Your task to perform on an android device: turn vacation reply on in the gmail app Image 0: 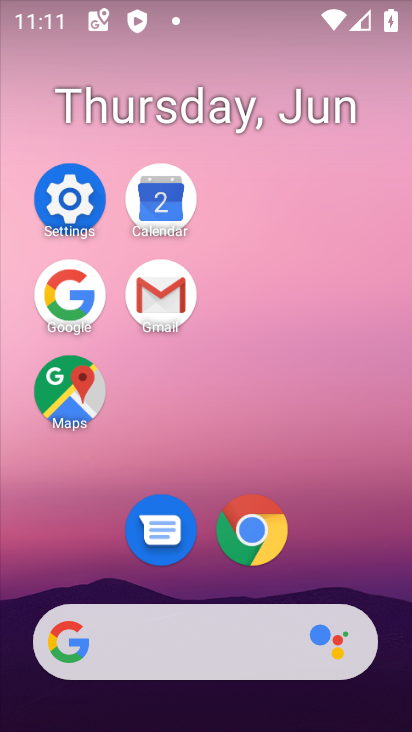
Step 0: click (157, 292)
Your task to perform on an android device: turn vacation reply on in the gmail app Image 1: 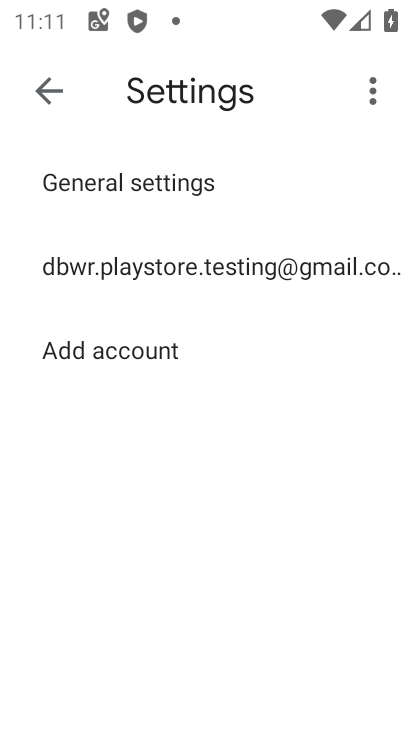
Step 1: click (103, 282)
Your task to perform on an android device: turn vacation reply on in the gmail app Image 2: 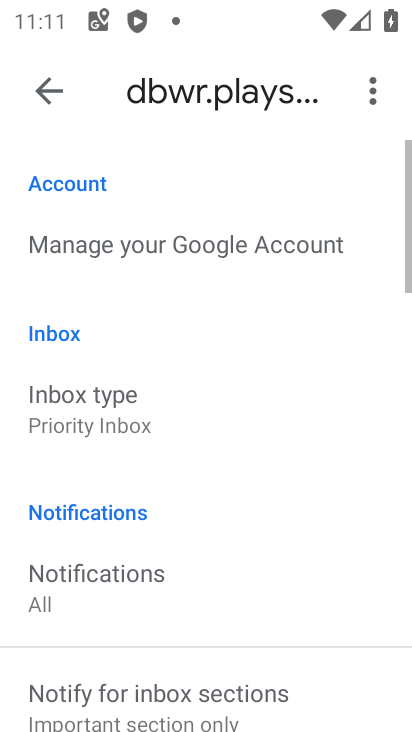
Step 2: drag from (198, 610) to (272, 140)
Your task to perform on an android device: turn vacation reply on in the gmail app Image 3: 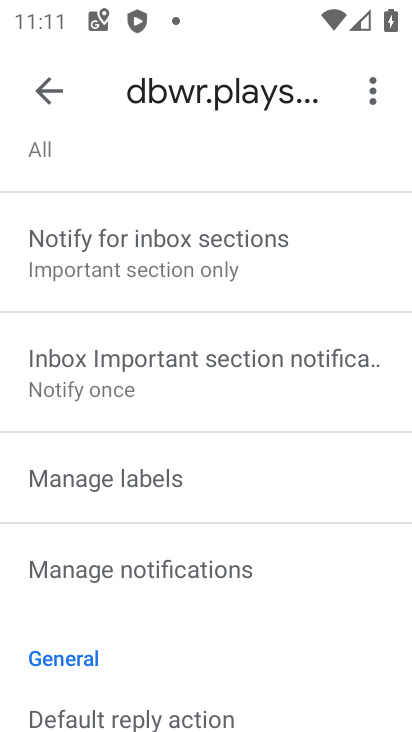
Step 3: drag from (213, 271) to (206, 562)
Your task to perform on an android device: turn vacation reply on in the gmail app Image 4: 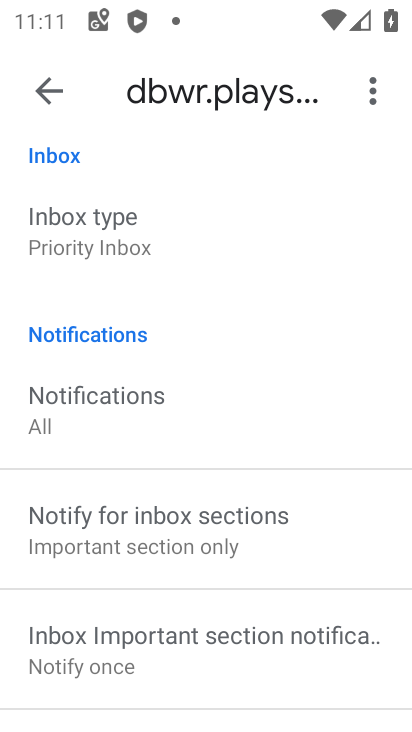
Step 4: drag from (243, 539) to (270, 54)
Your task to perform on an android device: turn vacation reply on in the gmail app Image 5: 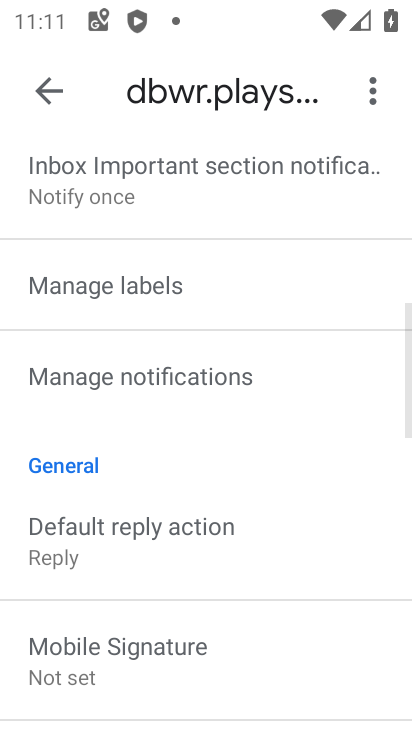
Step 5: drag from (255, 536) to (314, 43)
Your task to perform on an android device: turn vacation reply on in the gmail app Image 6: 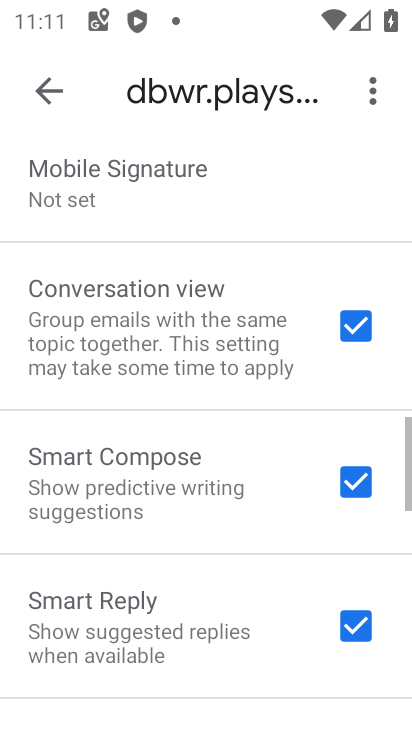
Step 6: drag from (306, 239) to (319, 119)
Your task to perform on an android device: turn vacation reply on in the gmail app Image 7: 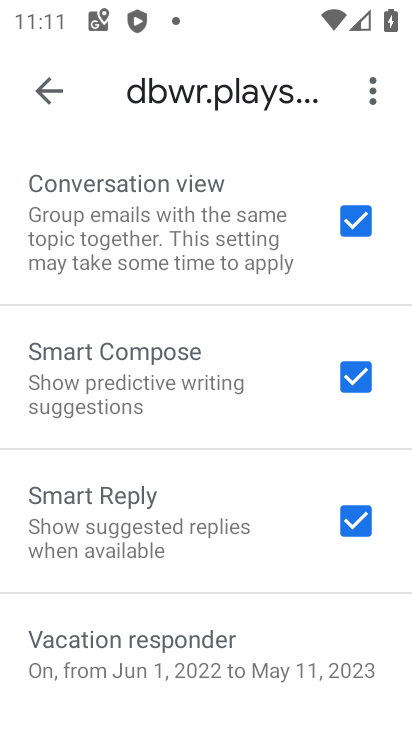
Step 7: click (232, 640)
Your task to perform on an android device: turn vacation reply on in the gmail app Image 8: 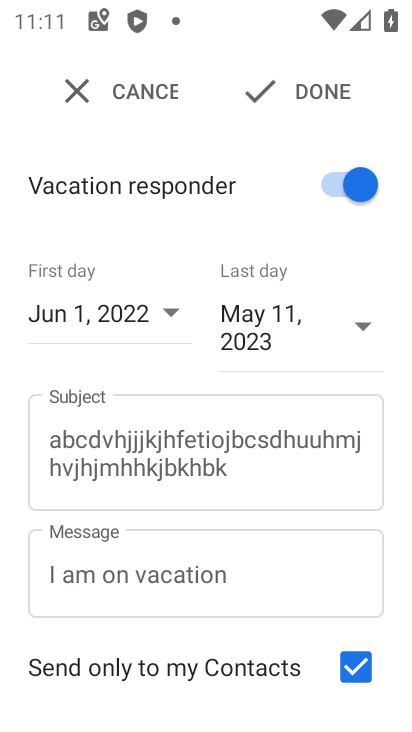
Step 8: click (311, 106)
Your task to perform on an android device: turn vacation reply on in the gmail app Image 9: 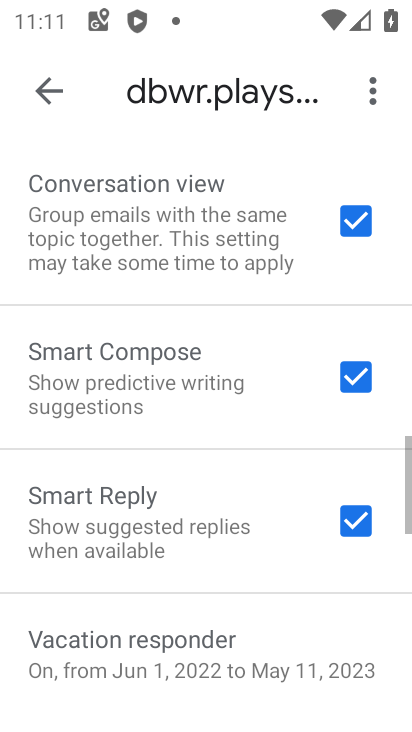
Step 9: task complete